Your task to perform on an android device: Open settings Image 0: 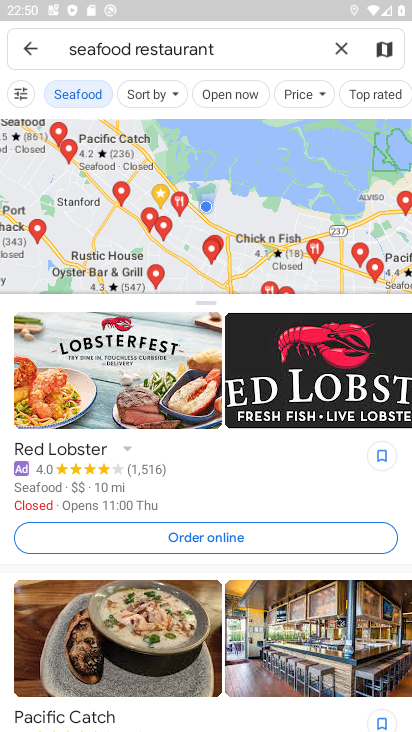
Step 0: press home button
Your task to perform on an android device: Open settings Image 1: 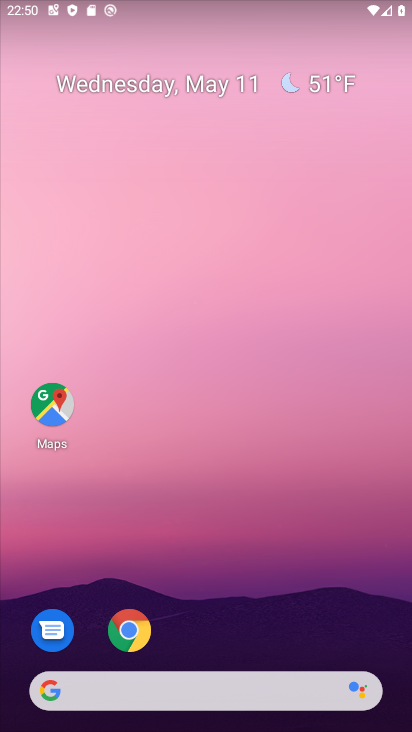
Step 1: drag from (206, 710) to (204, 119)
Your task to perform on an android device: Open settings Image 2: 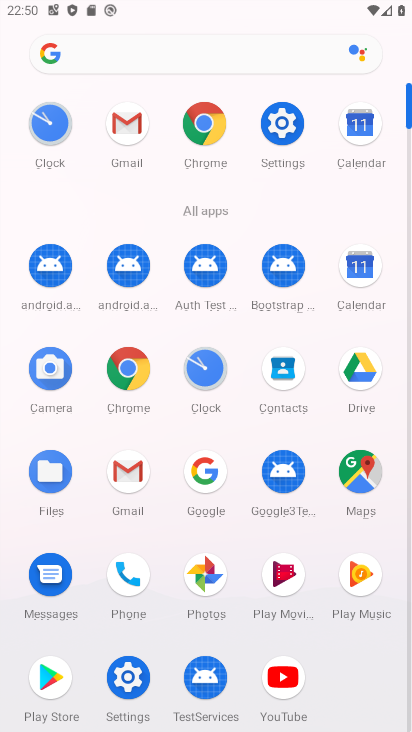
Step 2: click (279, 125)
Your task to perform on an android device: Open settings Image 3: 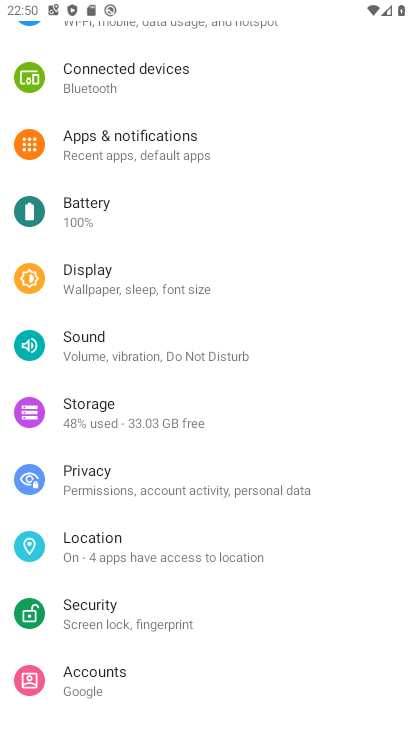
Step 3: task complete